Your task to perform on an android device: change notifications settings Image 0: 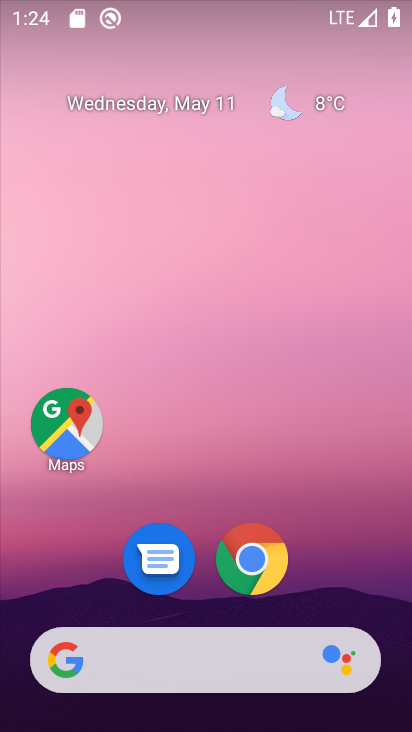
Step 0: drag from (192, 723) to (197, 167)
Your task to perform on an android device: change notifications settings Image 1: 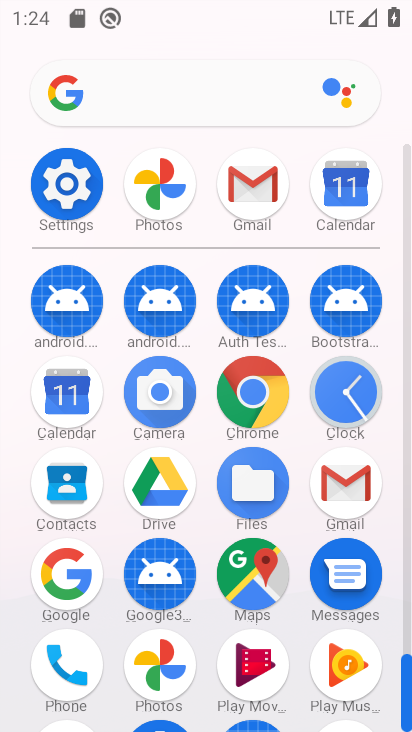
Step 1: click (62, 179)
Your task to perform on an android device: change notifications settings Image 2: 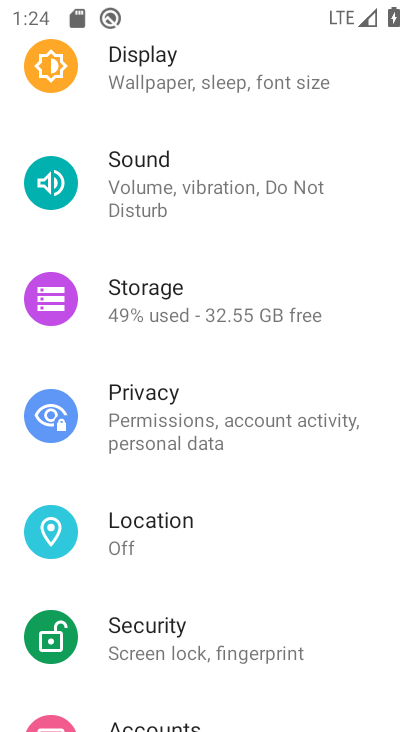
Step 2: drag from (153, 694) to (162, 301)
Your task to perform on an android device: change notifications settings Image 3: 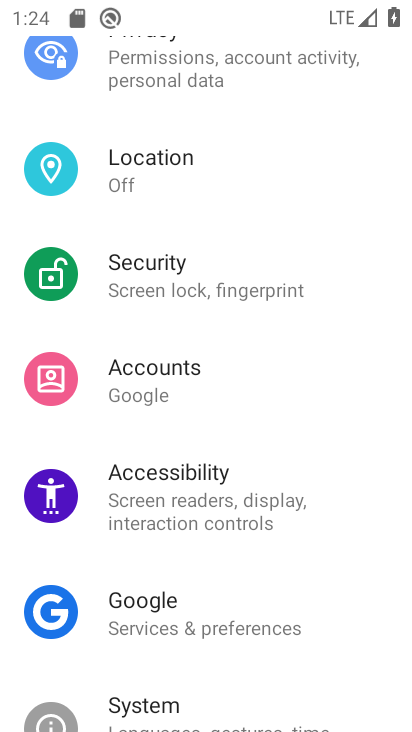
Step 3: drag from (168, 683) to (178, 281)
Your task to perform on an android device: change notifications settings Image 4: 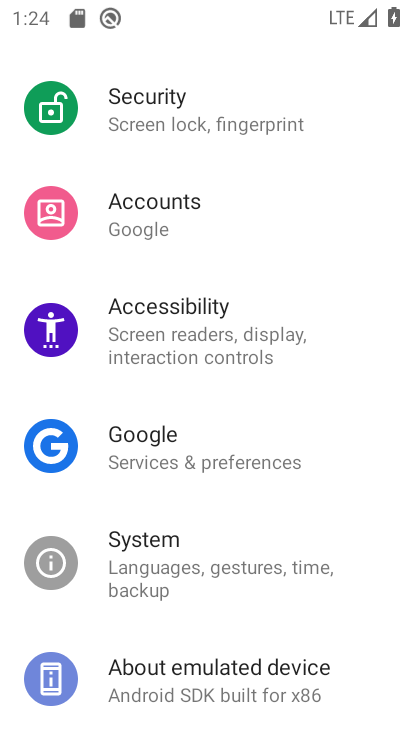
Step 4: drag from (289, 170) to (268, 610)
Your task to perform on an android device: change notifications settings Image 5: 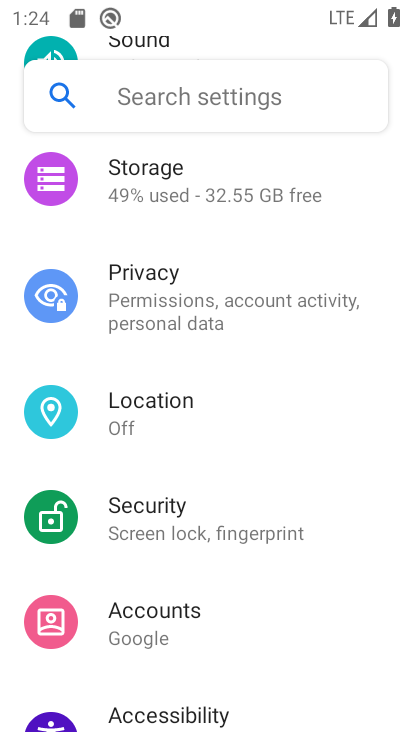
Step 5: drag from (250, 198) to (251, 625)
Your task to perform on an android device: change notifications settings Image 6: 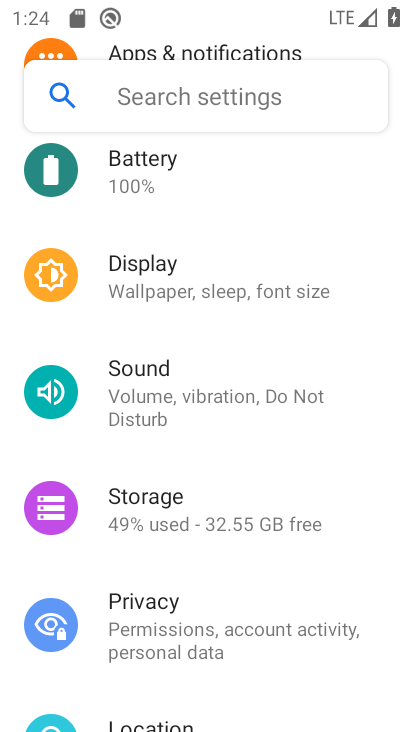
Step 6: drag from (265, 214) to (253, 617)
Your task to perform on an android device: change notifications settings Image 7: 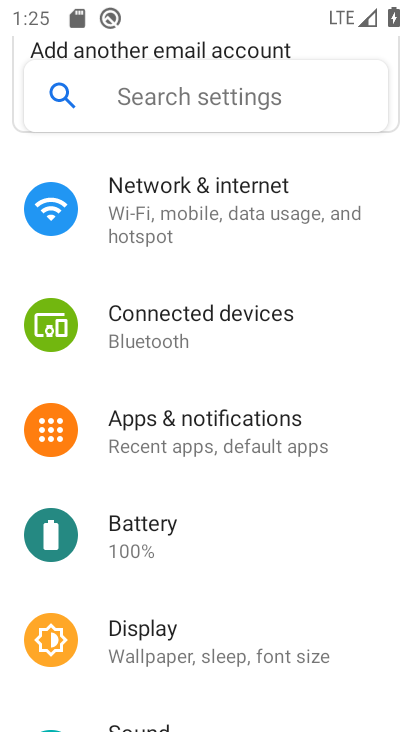
Step 7: click (241, 438)
Your task to perform on an android device: change notifications settings Image 8: 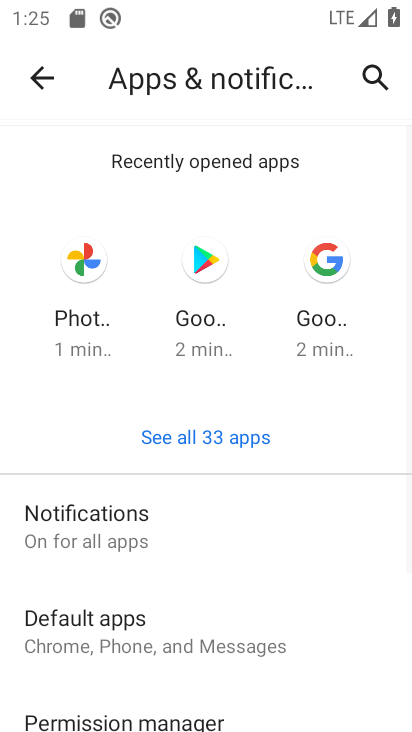
Step 8: click (84, 526)
Your task to perform on an android device: change notifications settings Image 9: 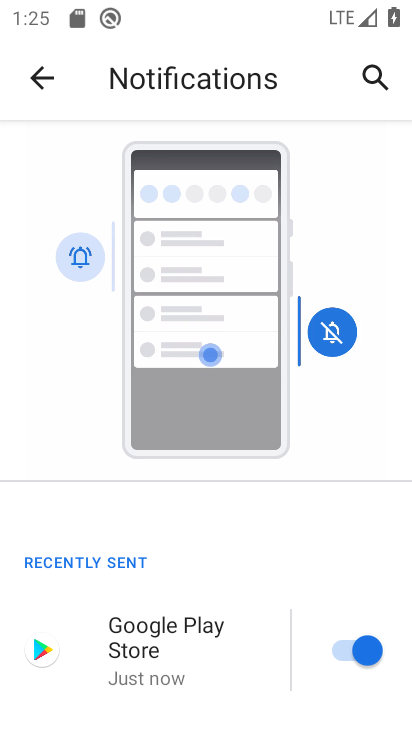
Step 9: drag from (215, 697) to (235, 404)
Your task to perform on an android device: change notifications settings Image 10: 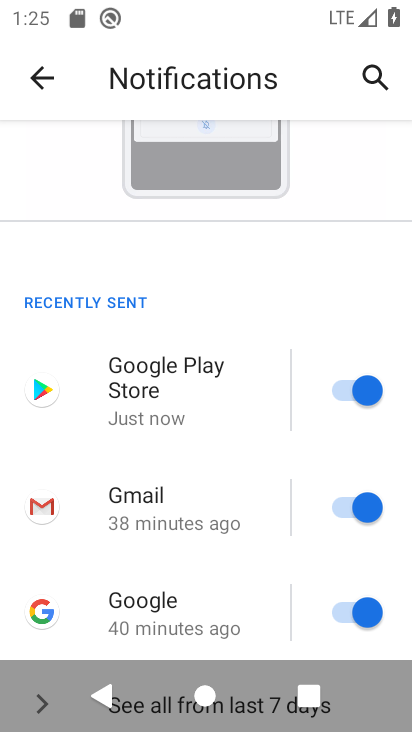
Step 10: drag from (233, 619) to (238, 236)
Your task to perform on an android device: change notifications settings Image 11: 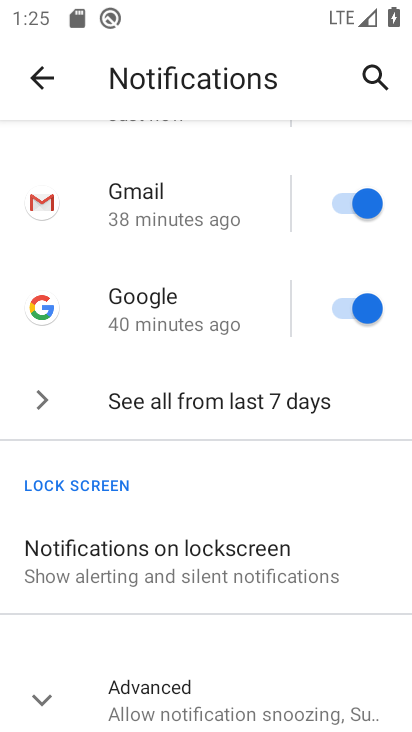
Step 11: drag from (234, 658) to (250, 431)
Your task to perform on an android device: change notifications settings Image 12: 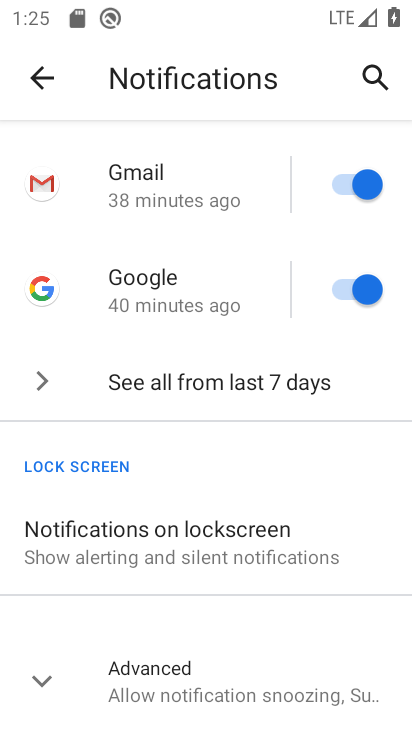
Step 12: click (154, 677)
Your task to perform on an android device: change notifications settings Image 13: 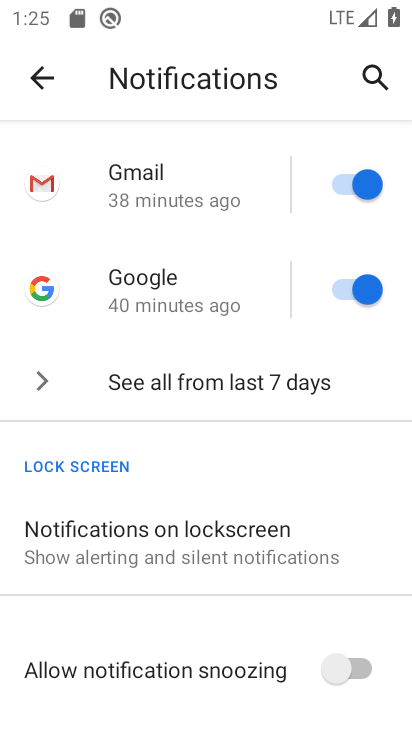
Step 13: click (359, 671)
Your task to perform on an android device: change notifications settings Image 14: 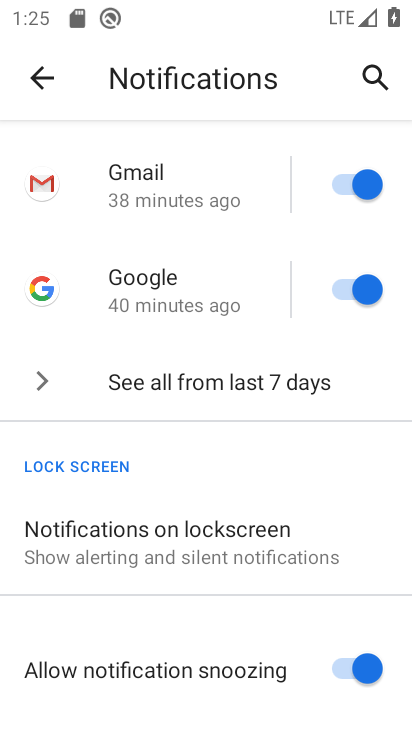
Step 14: task complete